Your task to perform on an android device: Clear the cart on newegg. Search for "sony triple a" on newegg, select the first entry, add it to the cart, then select checkout. Image 0: 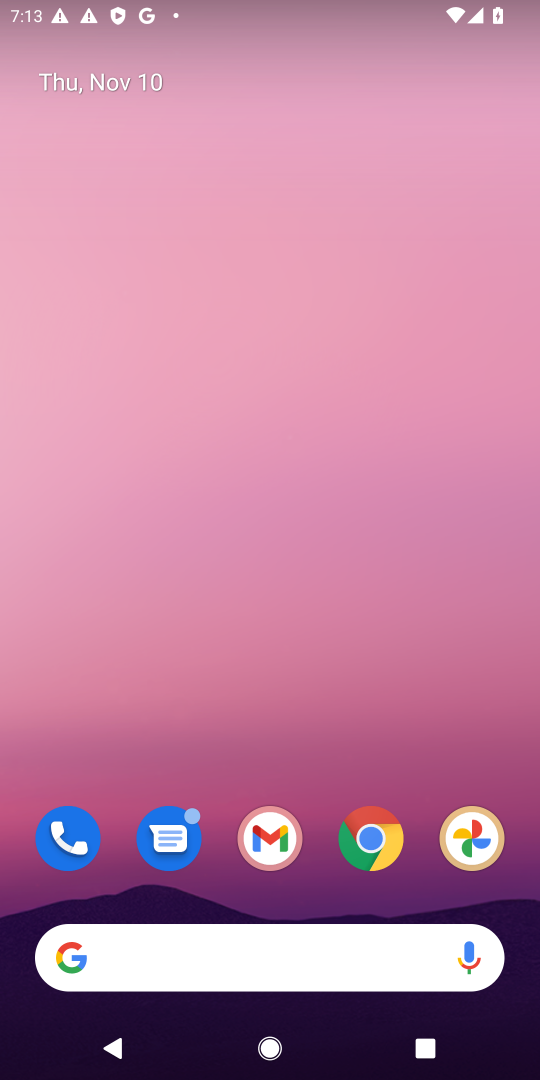
Step 0: click (296, 870)
Your task to perform on an android device: Clear the cart on newegg. Search for "sony triple a" on newegg, select the first entry, add it to the cart, then select checkout. Image 1: 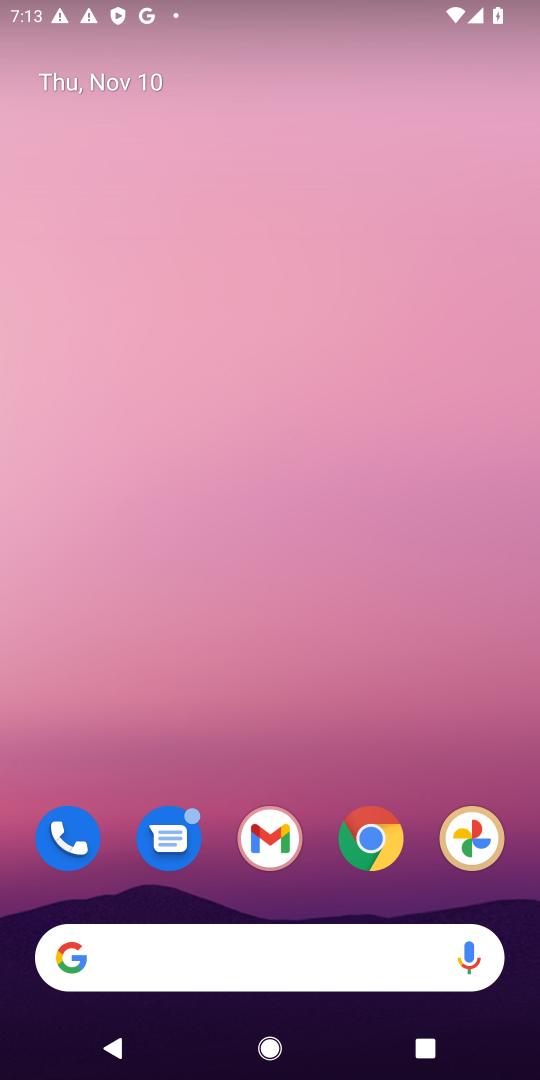
Step 1: drag from (321, 912) to (337, 66)
Your task to perform on an android device: Clear the cart on newegg. Search for "sony triple a" on newegg, select the first entry, add it to the cart, then select checkout. Image 2: 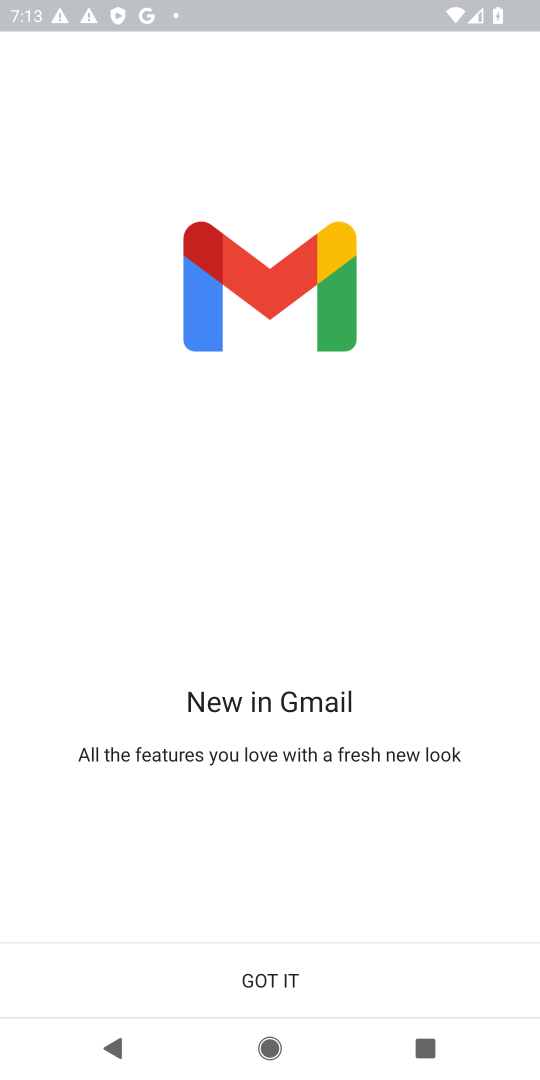
Step 2: press home button
Your task to perform on an android device: Clear the cart on newegg. Search for "sony triple a" on newegg, select the first entry, add it to the cart, then select checkout. Image 3: 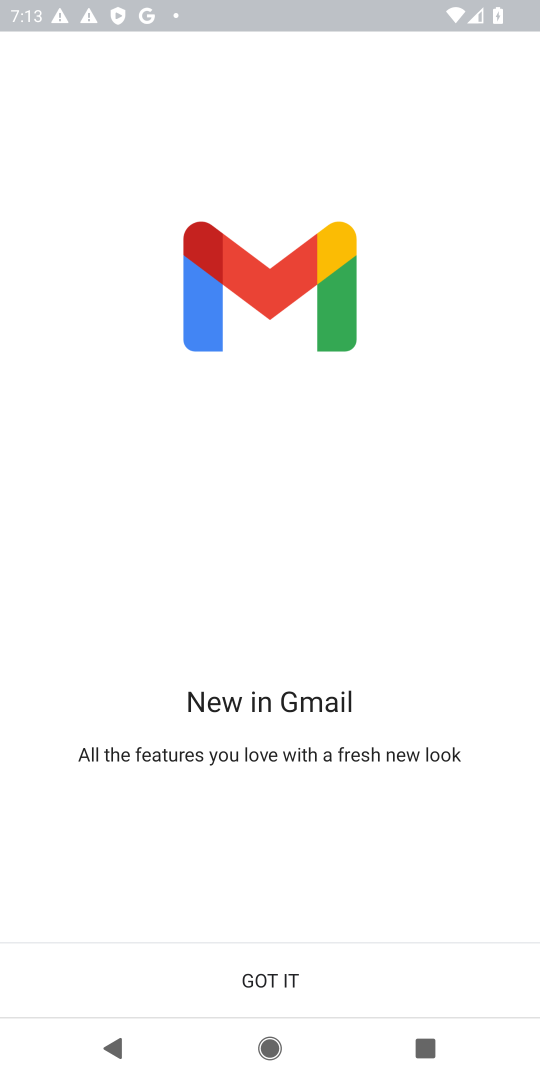
Step 3: press home button
Your task to perform on an android device: Clear the cart on newegg. Search for "sony triple a" on newegg, select the first entry, add it to the cart, then select checkout. Image 4: 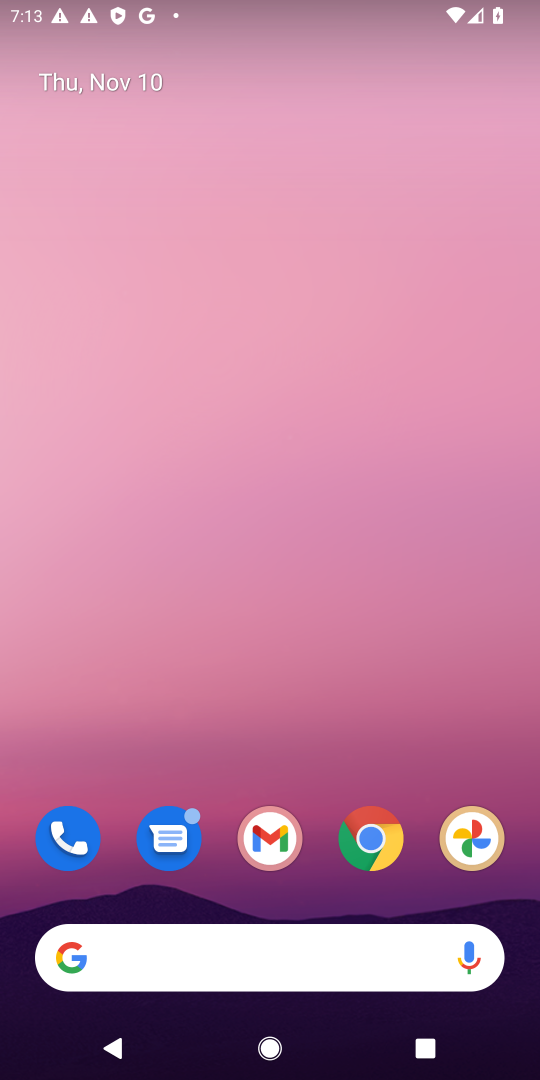
Step 4: drag from (302, 878) to (312, 127)
Your task to perform on an android device: Clear the cart on newegg. Search for "sony triple a" on newegg, select the first entry, add it to the cart, then select checkout. Image 5: 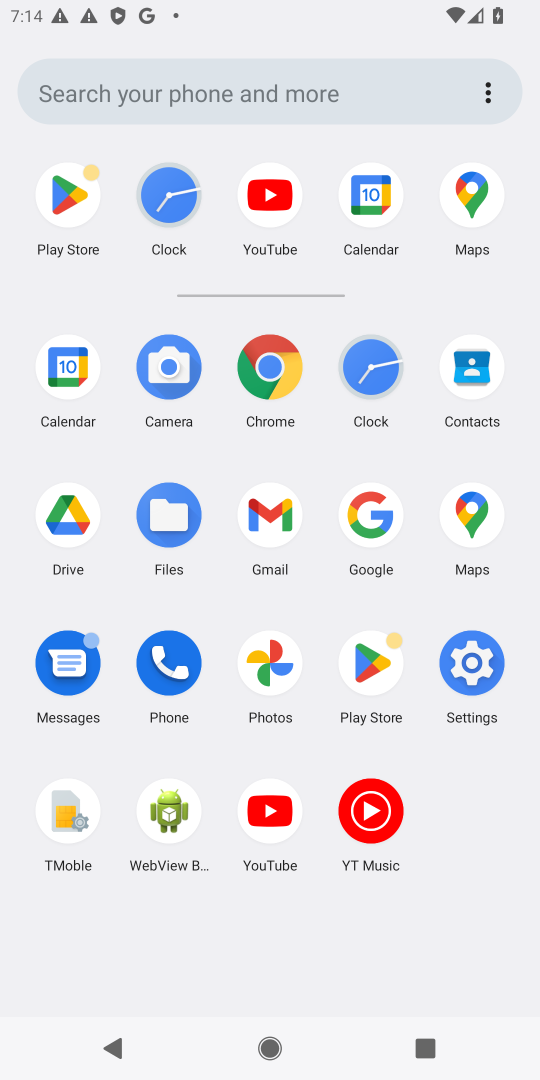
Step 5: click (265, 369)
Your task to perform on an android device: Clear the cart on newegg. Search for "sony triple a" on newegg, select the first entry, add it to the cart, then select checkout. Image 6: 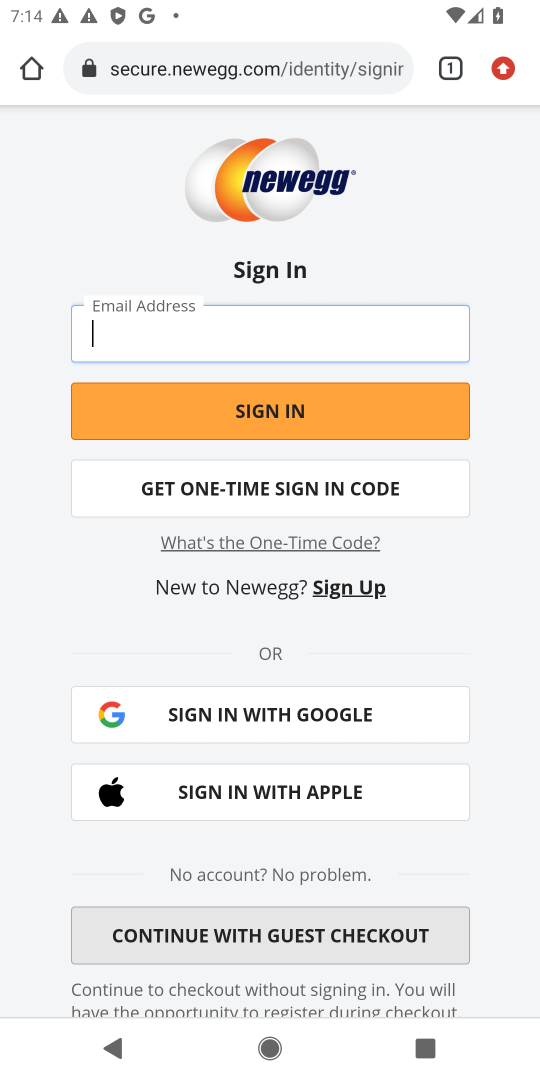
Step 6: click (328, 49)
Your task to perform on an android device: Clear the cart on newegg. Search for "sony triple a" on newegg, select the first entry, add it to the cart, then select checkout. Image 7: 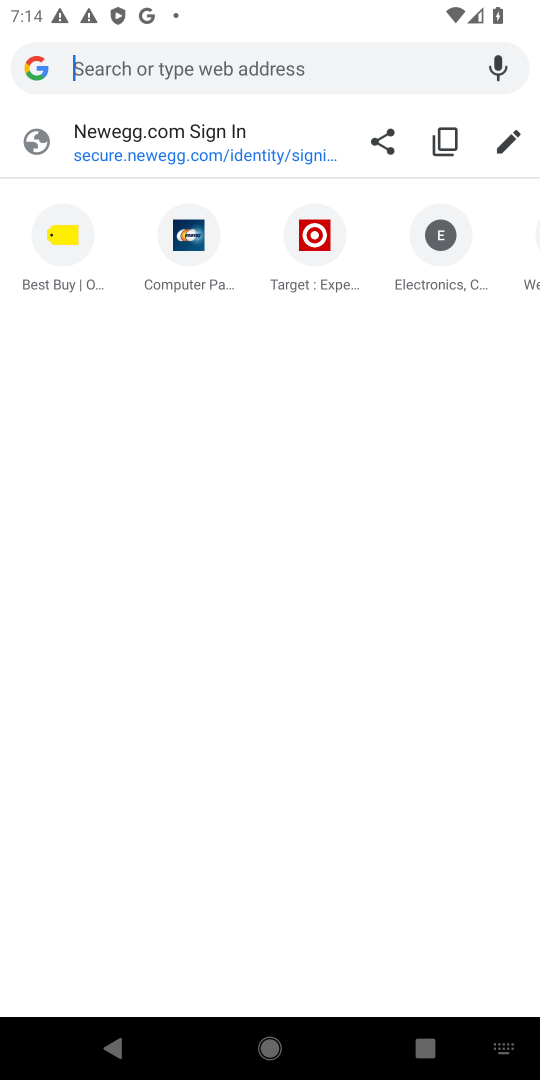
Step 7: type "newegg.com"
Your task to perform on an android device: Clear the cart on newegg. Search for "sony triple a" on newegg, select the first entry, add it to the cart, then select checkout. Image 8: 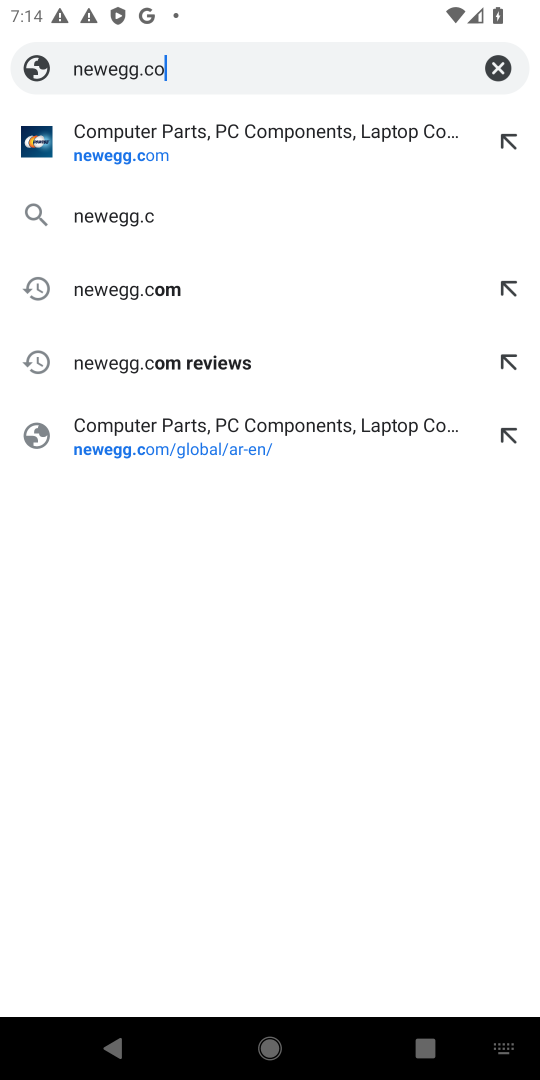
Step 8: press enter
Your task to perform on an android device: Clear the cart on newegg. Search for "sony triple a" on newegg, select the first entry, add it to the cart, then select checkout. Image 9: 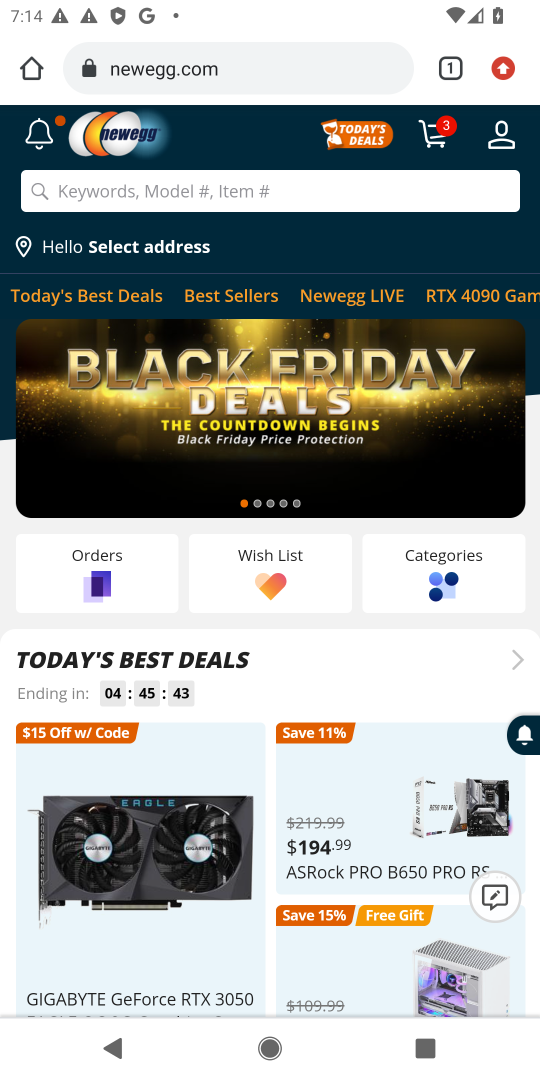
Step 9: click (436, 131)
Your task to perform on an android device: Clear the cart on newegg. Search for "sony triple a" on newegg, select the first entry, add it to the cart, then select checkout. Image 10: 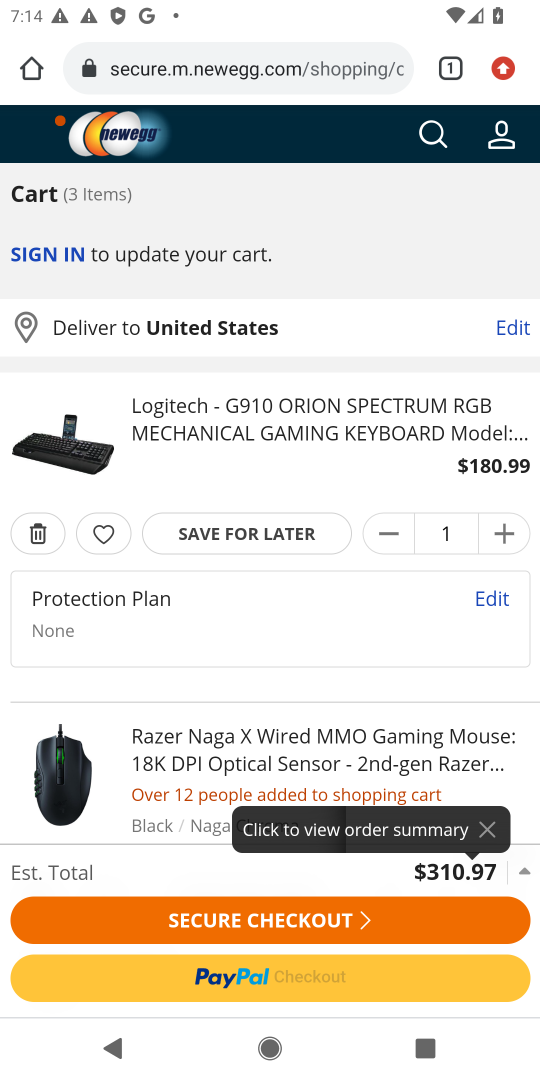
Step 10: click (43, 532)
Your task to perform on an android device: Clear the cart on newegg. Search for "sony triple a" on newegg, select the first entry, add it to the cart, then select checkout. Image 11: 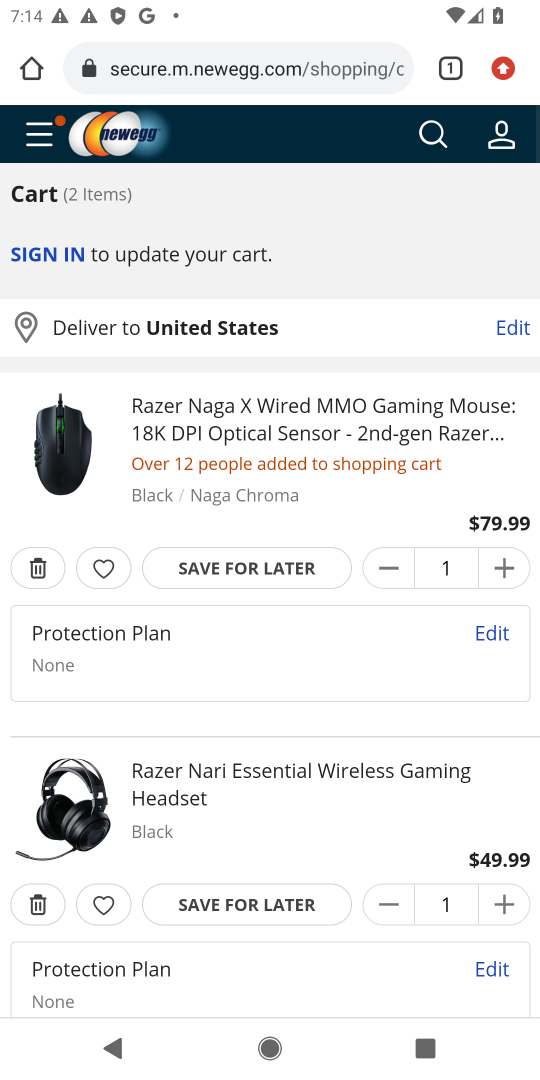
Step 11: click (39, 569)
Your task to perform on an android device: Clear the cart on newegg. Search for "sony triple a" on newegg, select the first entry, add it to the cart, then select checkout. Image 12: 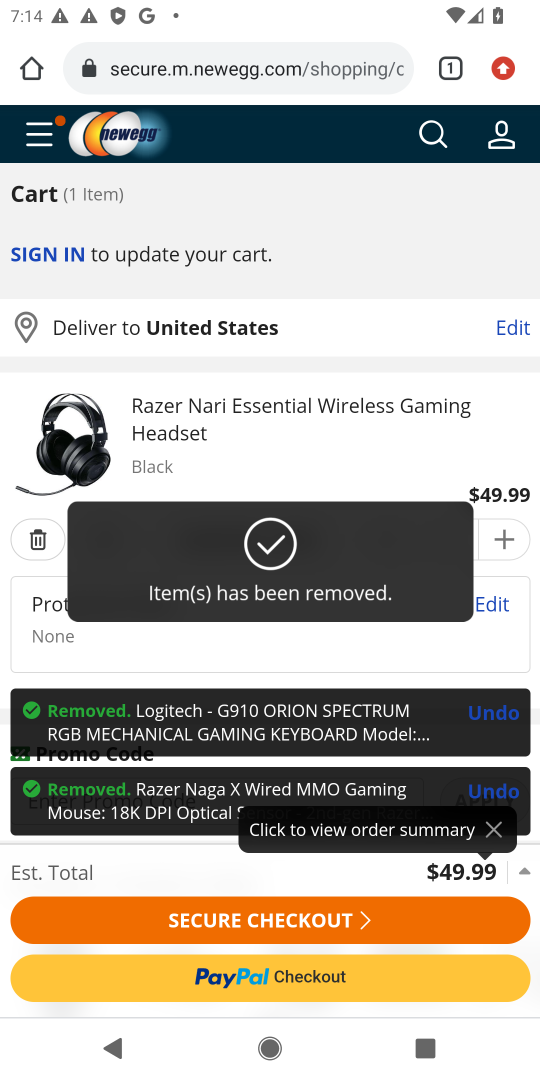
Step 12: click (34, 547)
Your task to perform on an android device: Clear the cart on newegg. Search for "sony triple a" on newegg, select the first entry, add it to the cart, then select checkout. Image 13: 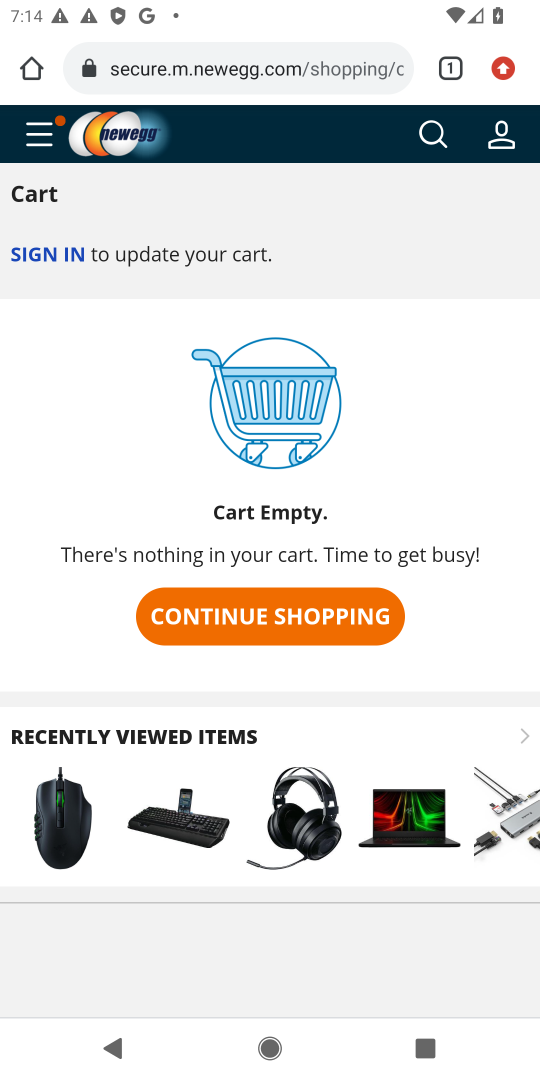
Step 13: click (424, 134)
Your task to perform on an android device: Clear the cart on newegg. Search for "sony triple a" on newegg, select the first entry, add it to the cart, then select checkout. Image 14: 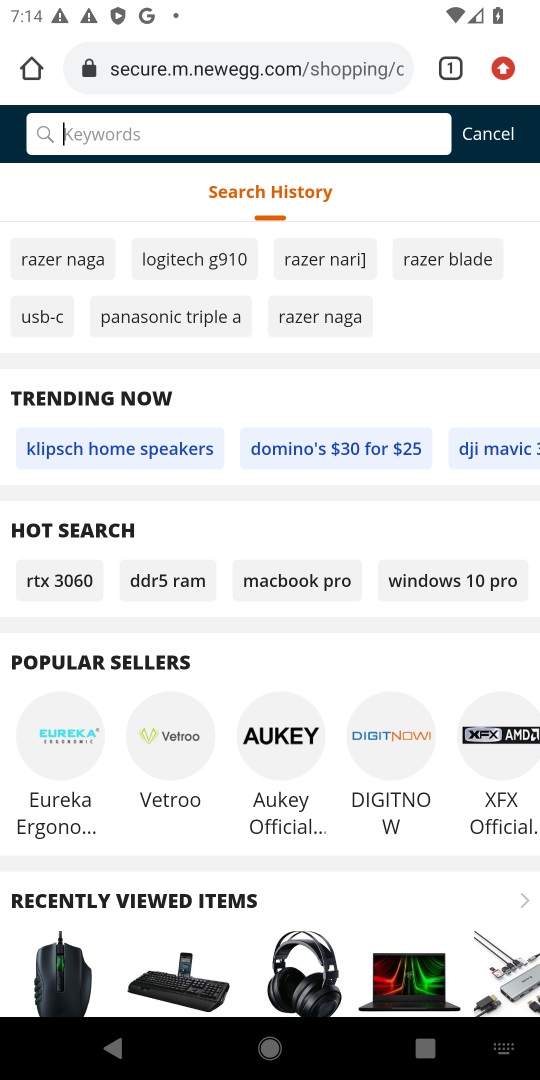
Step 14: type "sony triple a"
Your task to perform on an android device: Clear the cart on newegg. Search for "sony triple a" on newegg, select the first entry, add it to the cart, then select checkout. Image 15: 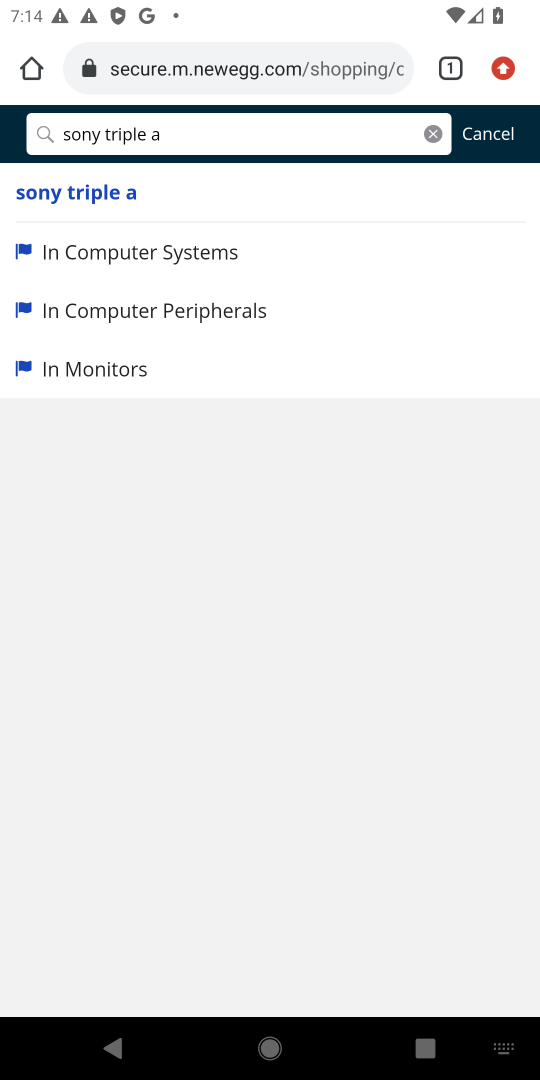
Step 15: press enter
Your task to perform on an android device: Clear the cart on newegg. Search for "sony triple a" on newegg, select the first entry, add it to the cart, then select checkout. Image 16: 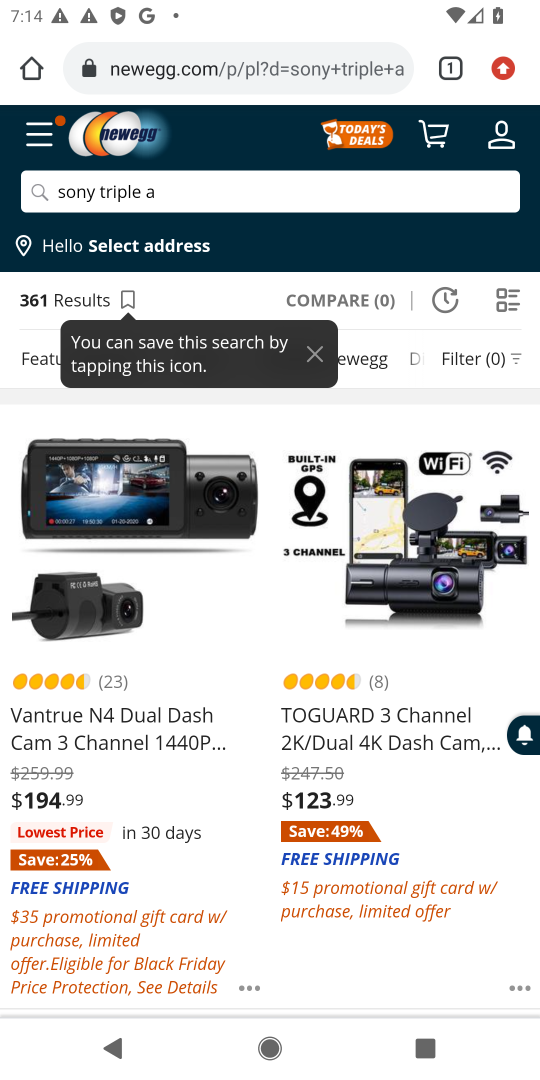
Step 16: task complete